Your task to perform on an android device: Go to eBay Image 0: 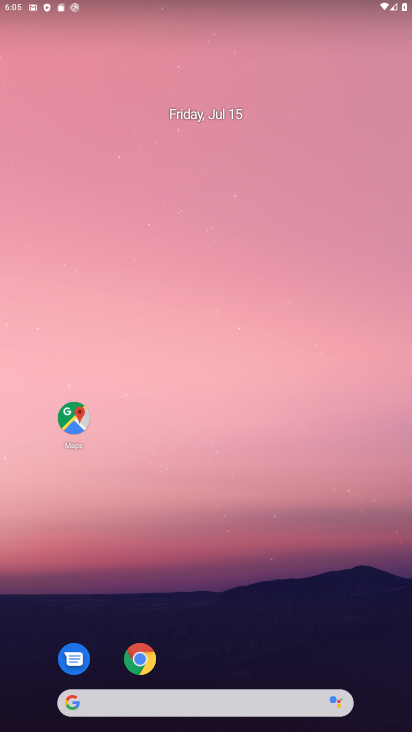
Step 0: click (138, 661)
Your task to perform on an android device: Go to eBay Image 1: 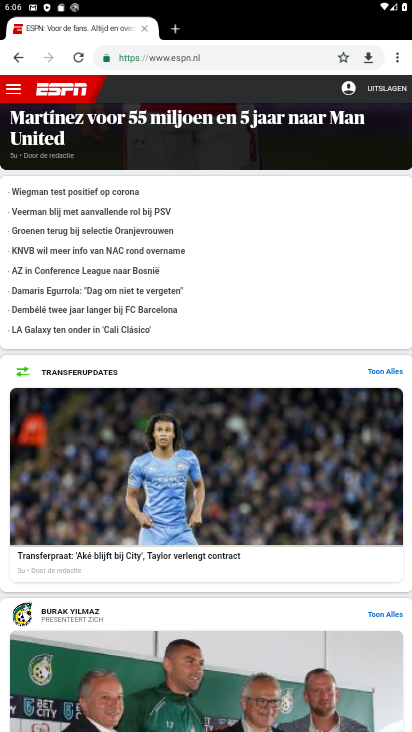
Step 1: click (225, 56)
Your task to perform on an android device: Go to eBay Image 2: 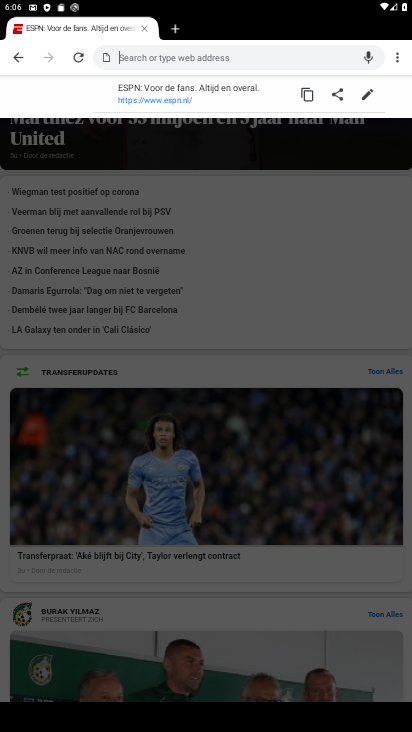
Step 2: type "eBay"
Your task to perform on an android device: Go to eBay Image 3: 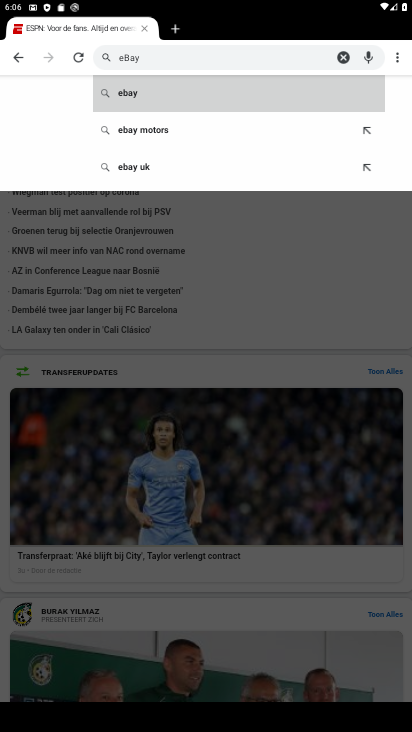
Step 3: click (135, 94)
Your task to perform on an android device: Go to eBay Image 4: 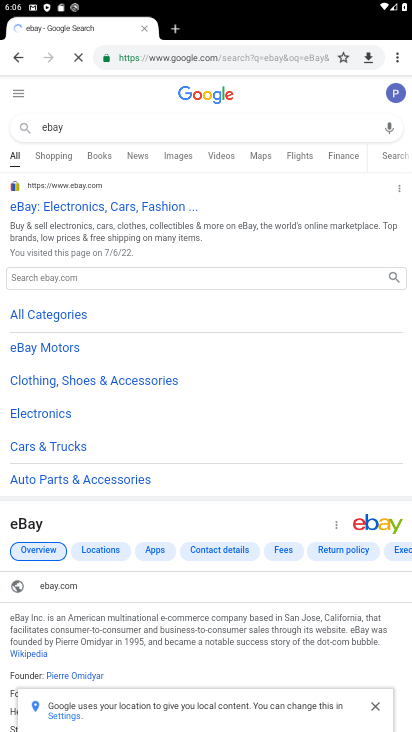
Step 4: click (72, 208)
Your task to perform on an android device: Go to eBay Image 5: 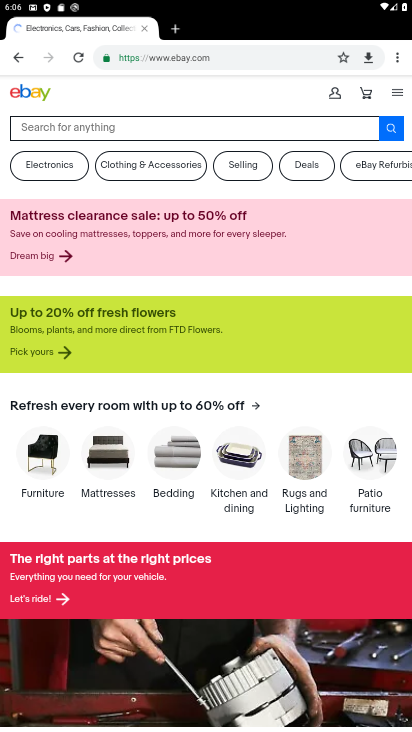
Step 5: task complete